Your task to perform on an android device: Open location settings Image 0: 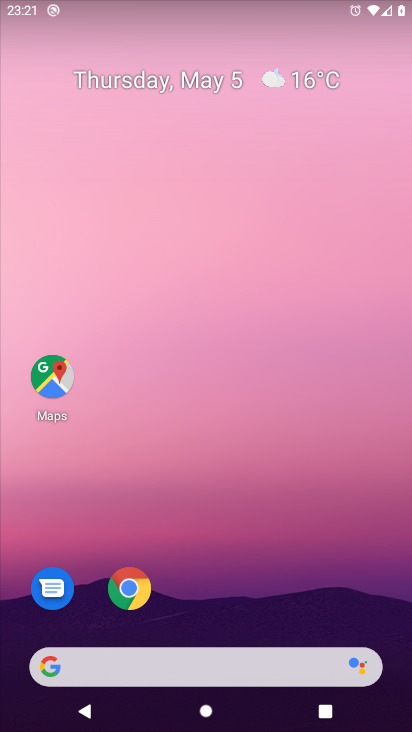
Step 0: drag from (201, 596) to (263, 339)
Your task to perform on an android device: Open location settings Image 1: 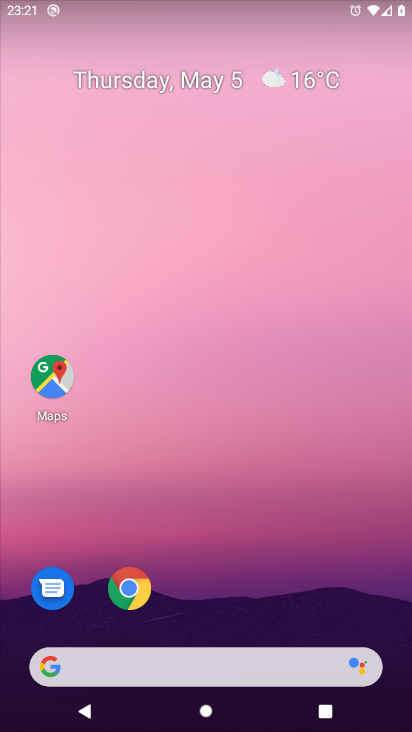
Step 1: drag from (225, 600) to (226, 195)
Your task to perform on an android device: Open location settings Image 2: 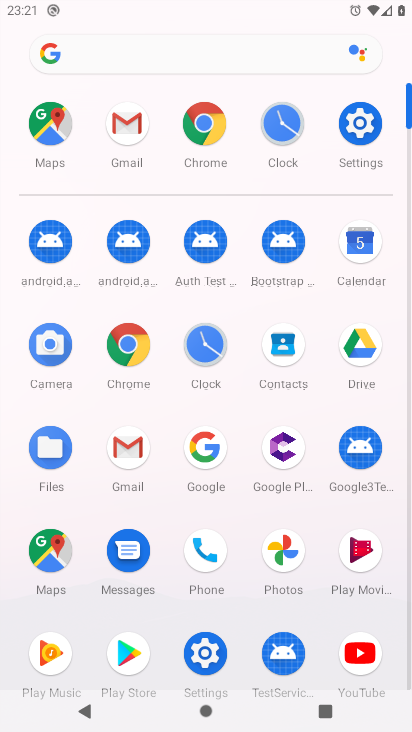
Step 2: click (374, 140)
Your task to perform on an android device: Open location settings Image 3: 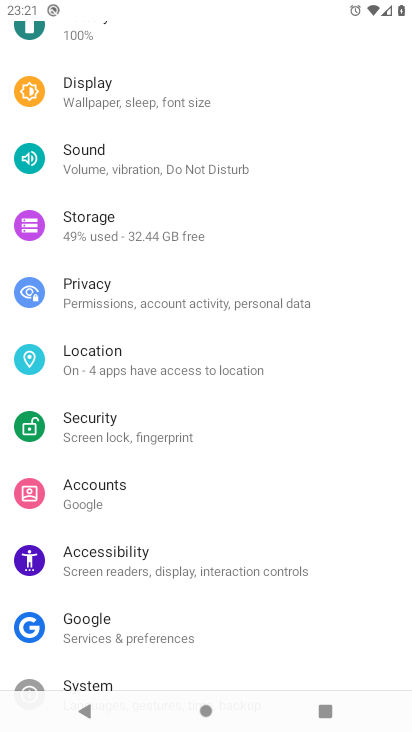
Step 3: click (246, 359)
Your task to perform on an android device: Open location settings Image 4: 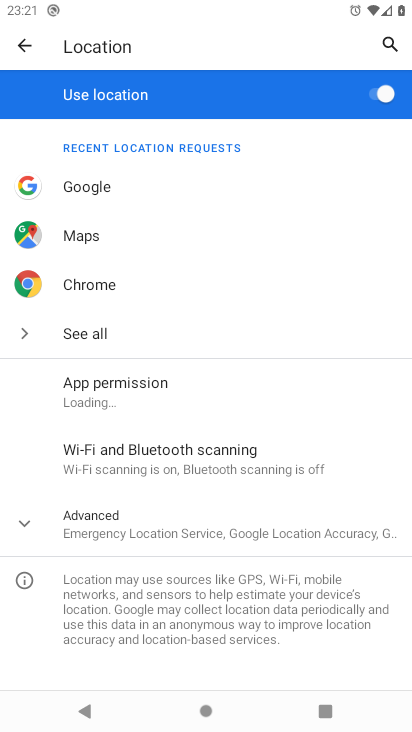
Step 4: click (282, 540)
Your task to perform on an android device: Open location settings Image 5: 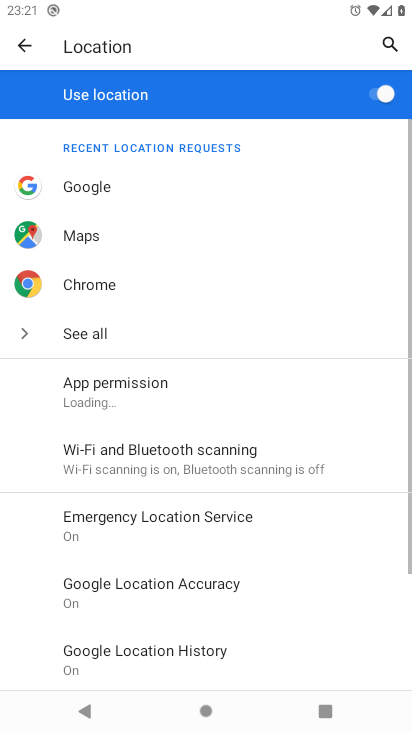
Step 5: task complete